Your task to perform on an android device: Open the phone app and click the voicemail tab. Image 0: 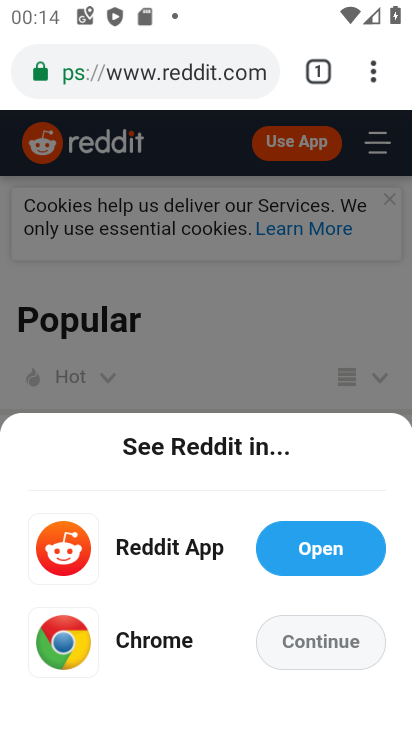
Step 0: press home button
Your task to perform on an android device: Open the phone app and click the voicemail tab. Image 1: 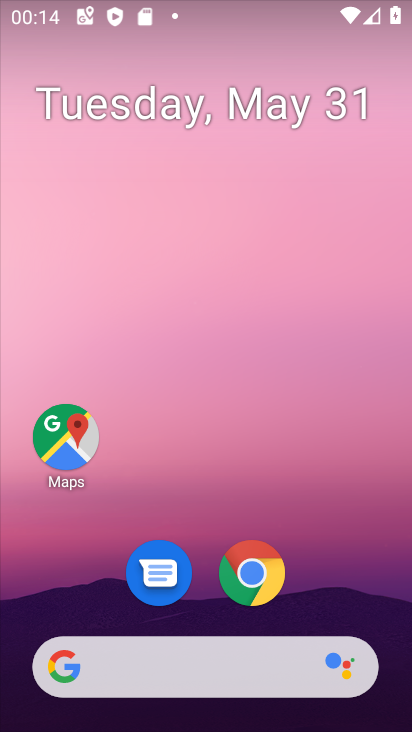
Step 1: drag from (203, 699) to (218, 26)
Your task to perform on an android device: Open the phone app and click the voicemail tab. Image 2: 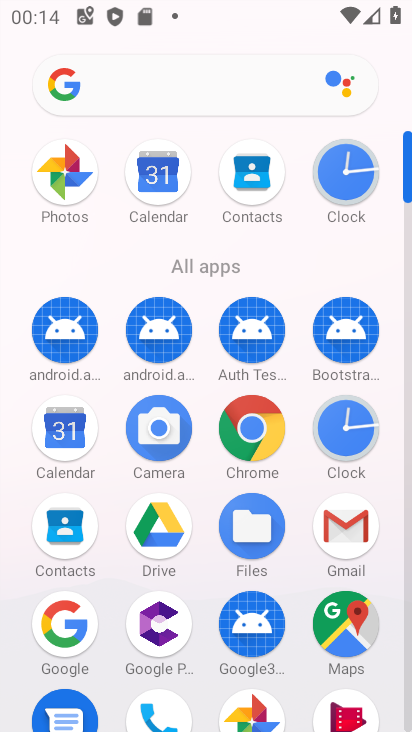
Step 2: click (144, 710)
Your task to perform on an android device: Open the phone app and click the voicemail tab. Image 3: 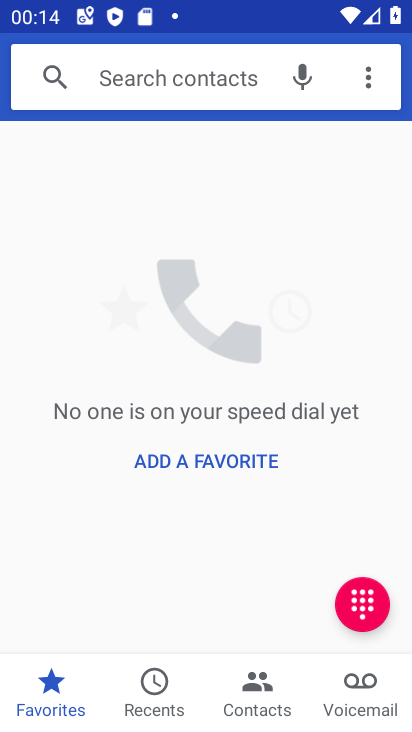
Step 3: click (372, 697)
Your task to perform on an android device: Open the phone app and click the voicemail tab. Image 4: 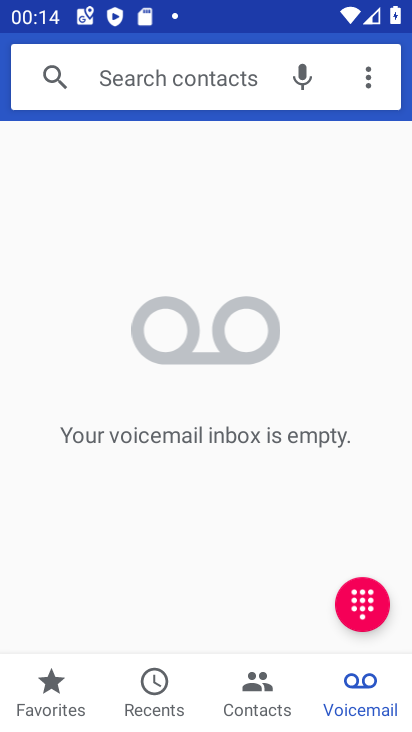
Step 4: task complete